Your task to perform on an android device: Open battery settings Image 0: 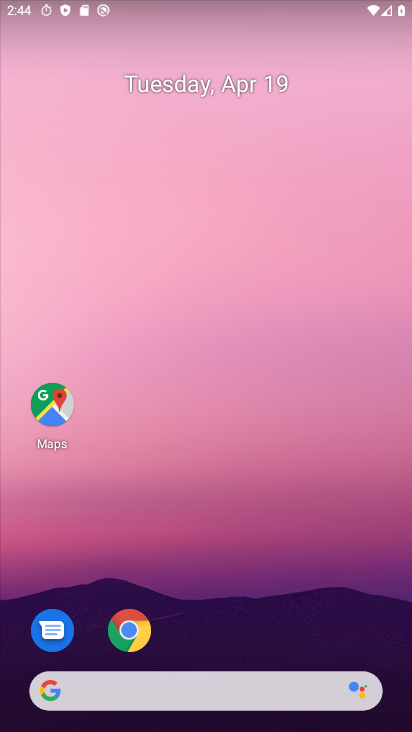
Step 0: drag from (271, 644) to (289, 71)
Your task to perform on an android device: Open battery settings Image 1: 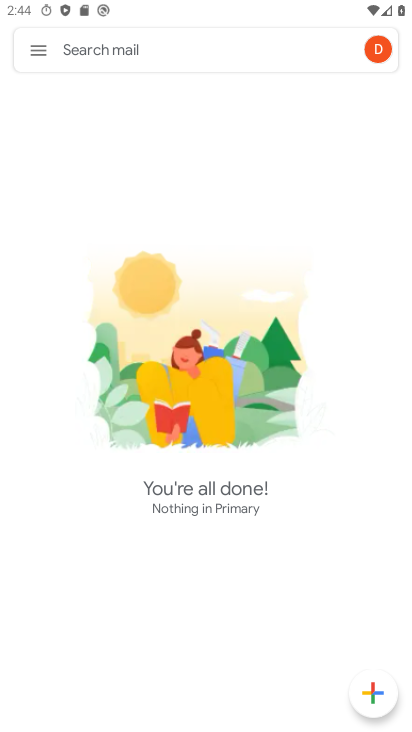
Step 1: press home button
Your task to perform on an android device: Open battery settings Image 2: 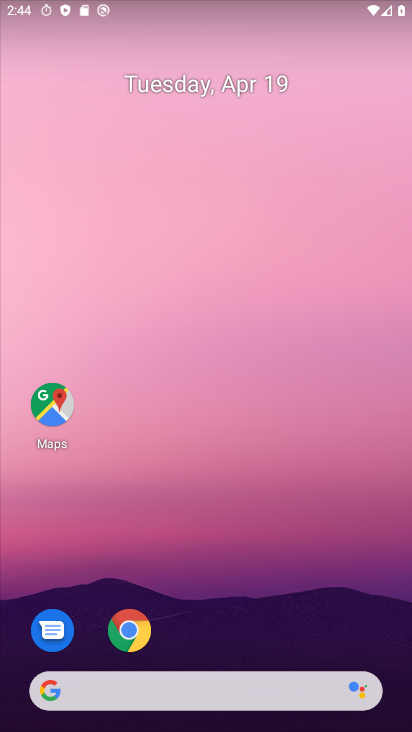
Step 2: drag from (282, 633) to (254, 106)
Your task to perform on an android device: Open battery settings Image 3: 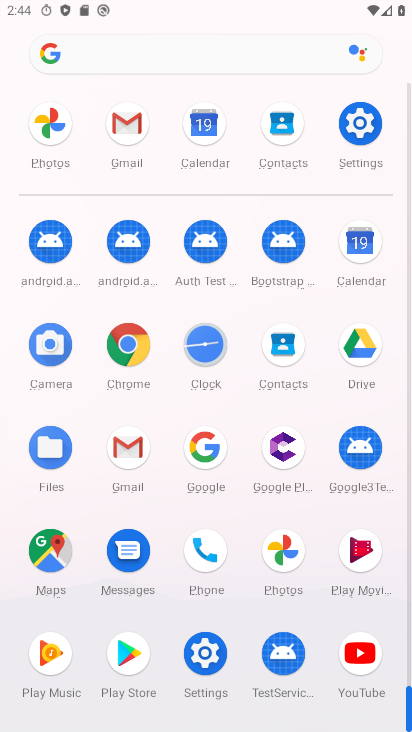
Step 3: click (358, 132)
Your task to perform on an android device: Open battery settings Image 4: 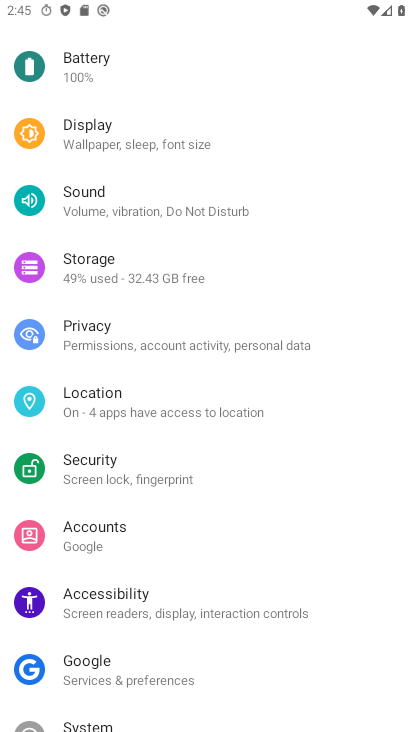
Step 4: click (117, 78)
Your task to perform on an android device: Open battery settings Image 5: 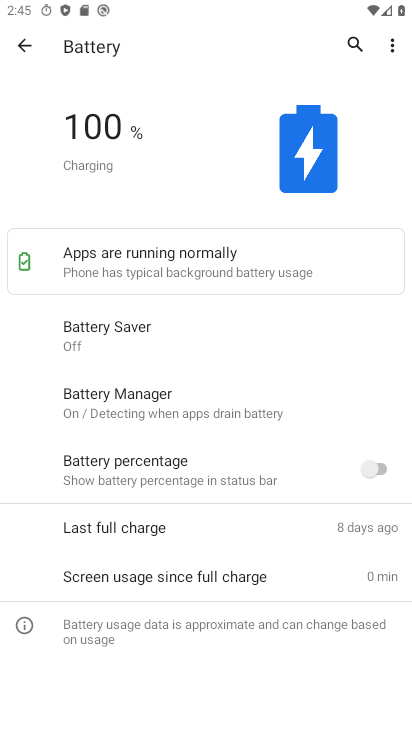
Step 5: task complete